Your task to perform on an android device: Open Reddit.com Image 0: 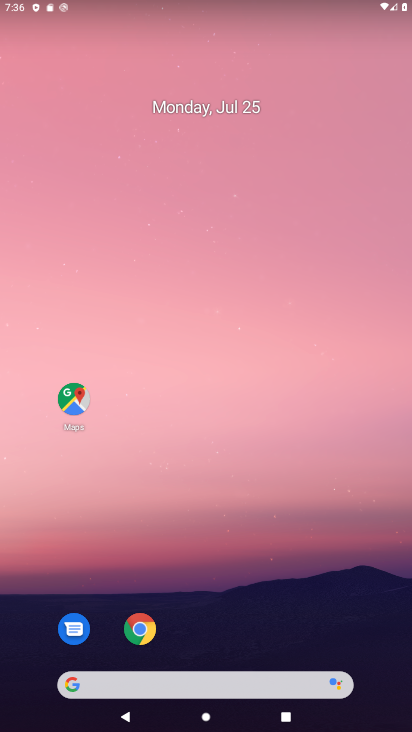
Step 0: click (110, 692)
Your task to perform on an android device: Open Reddit.com Image 1: 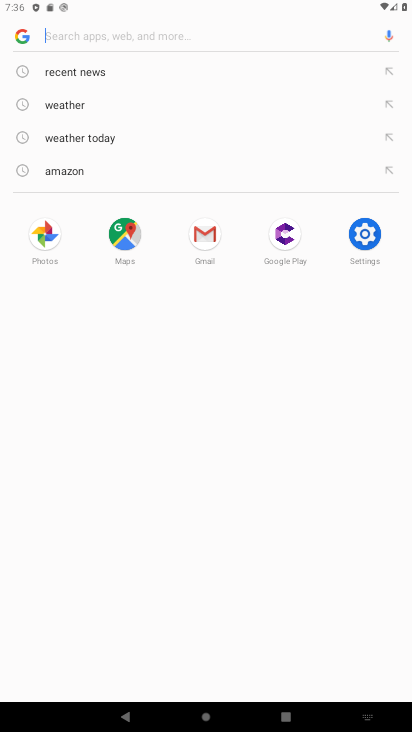
Step 1: type "Reddit.com"
Your task to perform on an android device: Open Reddit.com Image 2: 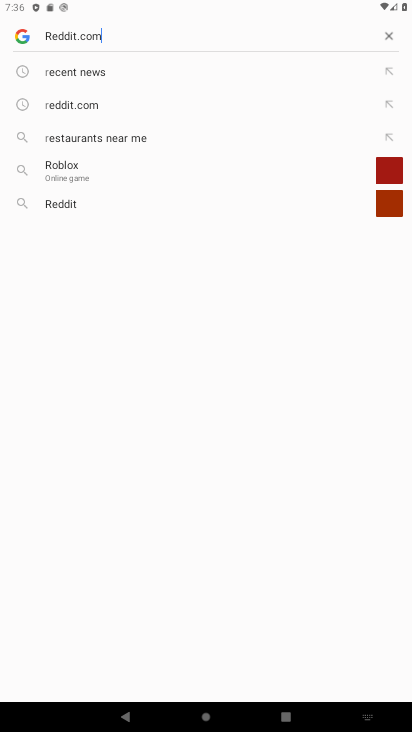
Step 2: type ""
Your task to perform on an android device: Open Reddit.com Image 3: 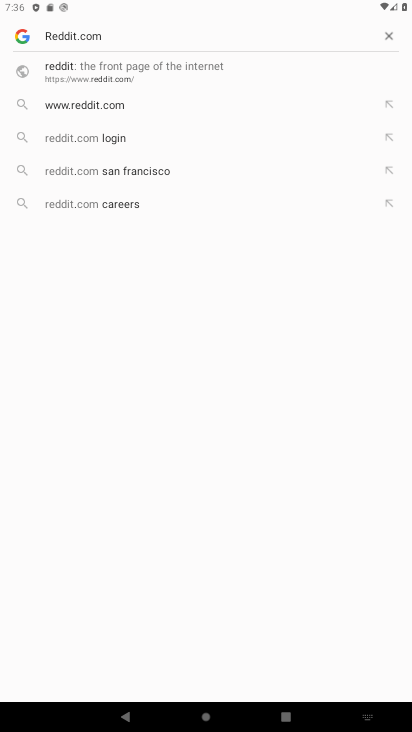
Step 3: type ""
Your task to perform on an android device: Open Reddit.com Image 4: 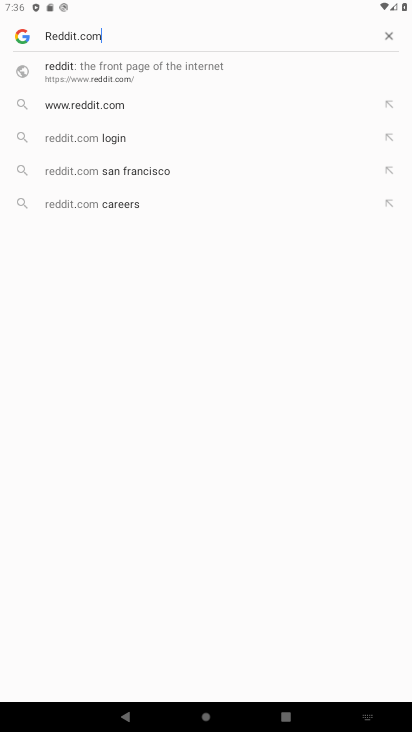
Step 4: type ""
Your task to perform on an android device: Open Reddit.com Image 5: 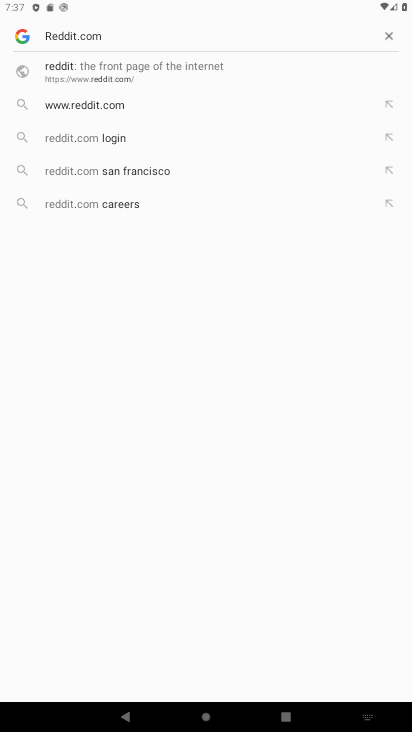
Step 5: task complete